Your task to perform on an android device: Open the web browser Image 0: 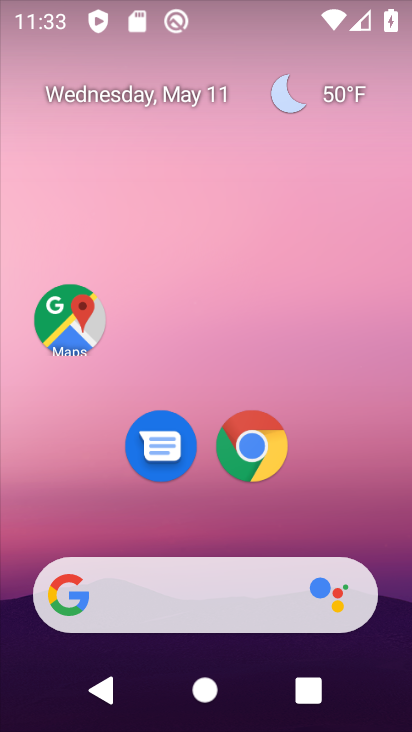
Step 0: click (244, 463)
Your task to perform on an android device: Open the web browser Image 1: 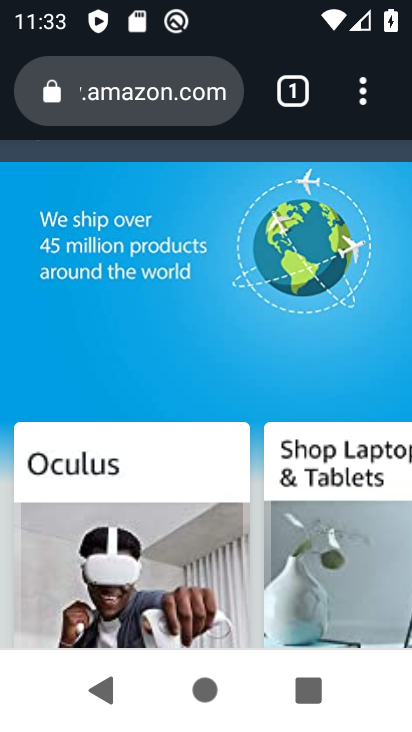
Step 1: task complete